Your task to perform on an android device: move a message to another label in the gmail app Image 0: 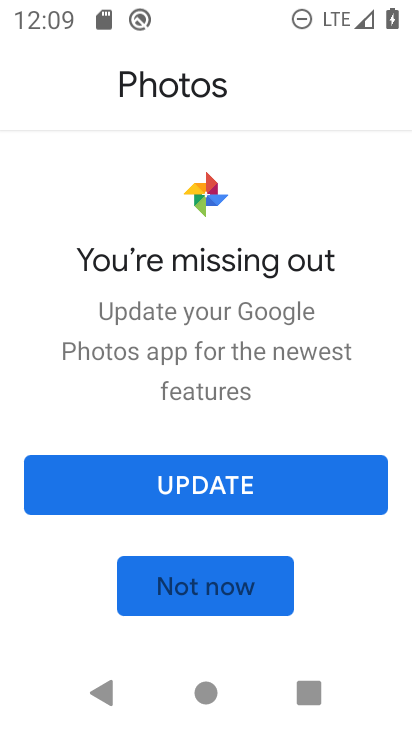
Step 0: press home button
Your task to perform on an android device: move a message to another label in the gmail app Image 1: 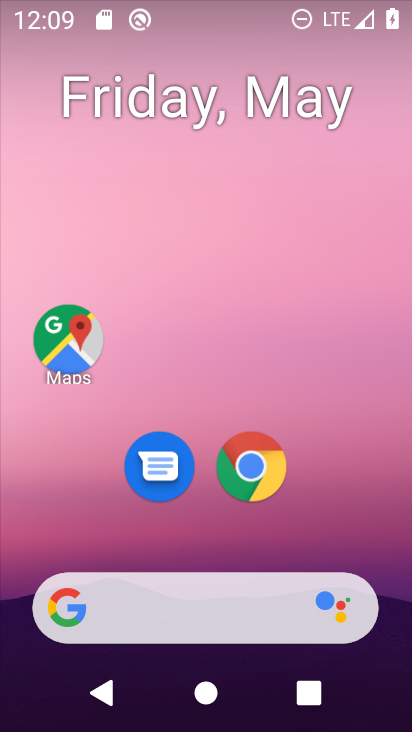
Step 1: drag from (326, 410) to (404, 12)
Your task to perform on an android device: move a message to another label in the gmail app Image 2: 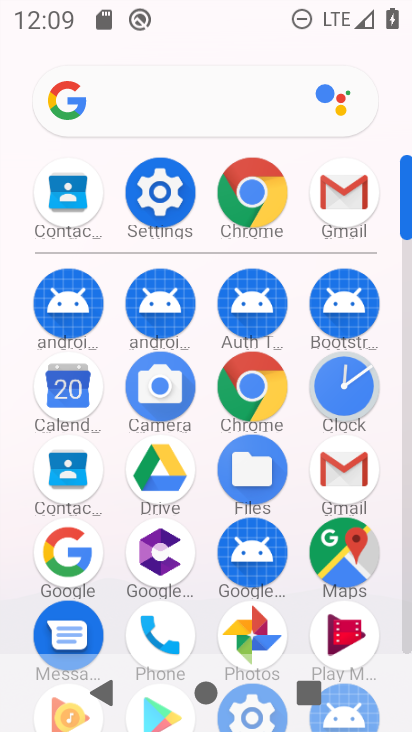
Step 2: click (325, 470)
Your task to perform on an android device: move a message to another label in the gmail app Image 3: 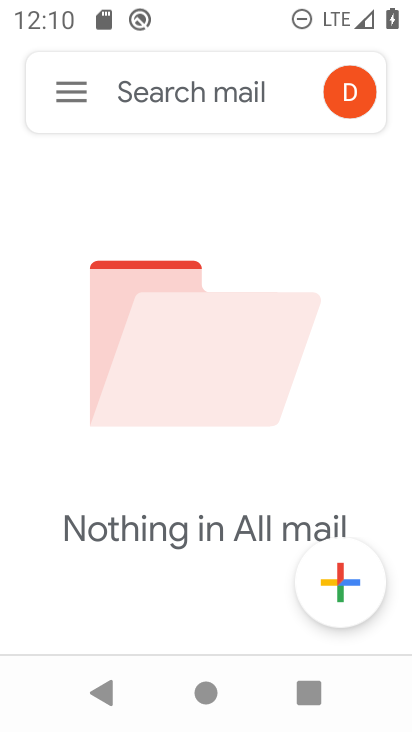
Step 3: task complete